Your task to perform on an android device: Open the map Image 0: 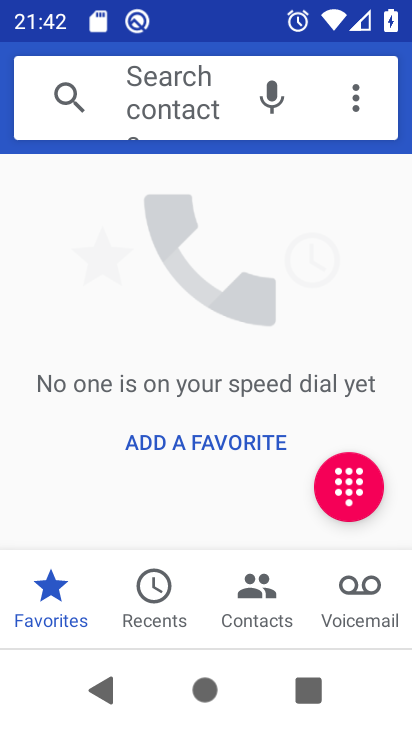
Step 0: press home button
Your task to perform on an android device: Open the map Image 1: 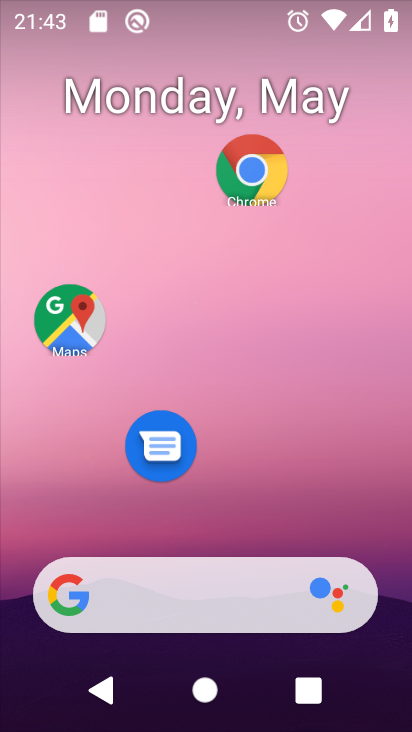
Step 1: click (66, 313)
Your task to perform on an android device: Open the map Image 2: 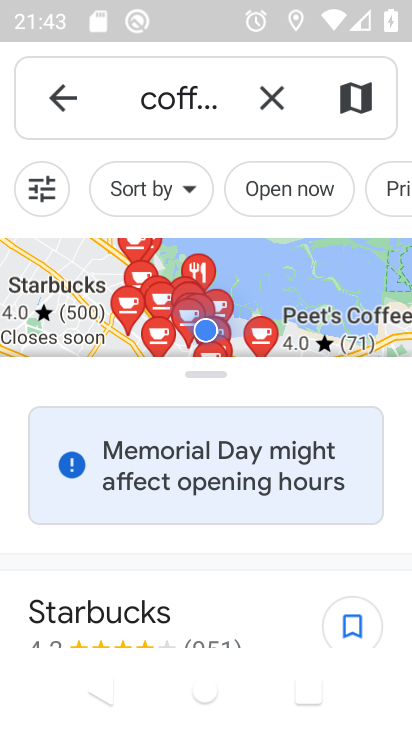
Step 2: click (269, 109)
Your task to perform on an android device: Open the map Image 3: 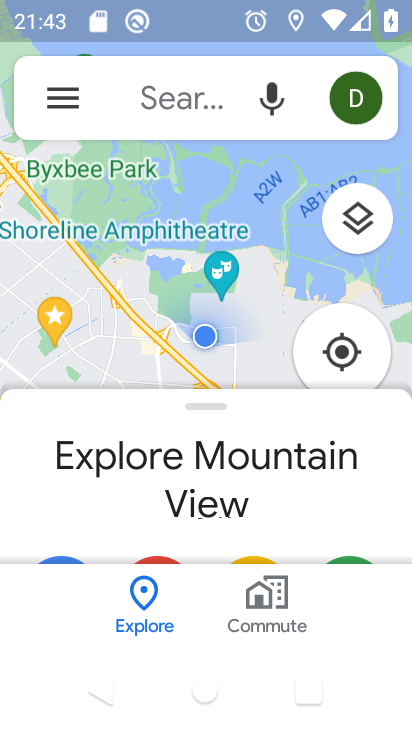
Step 3: task complete